Your task to perform on an android device: open wifi settings Image 0: 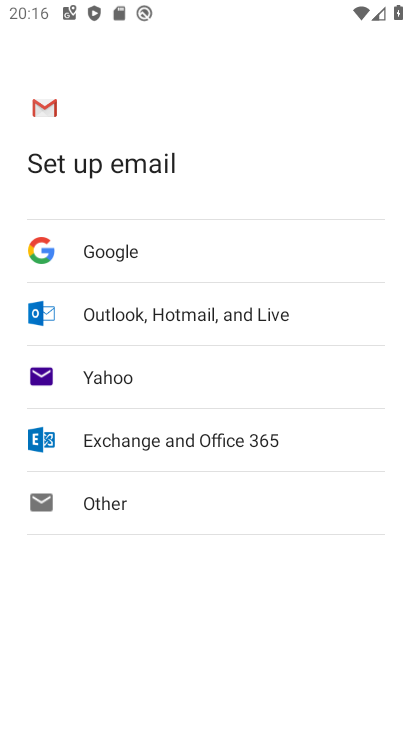
Step 0: click (27, 513)
Your task to perform on an android device: open wifi settings Image 1: 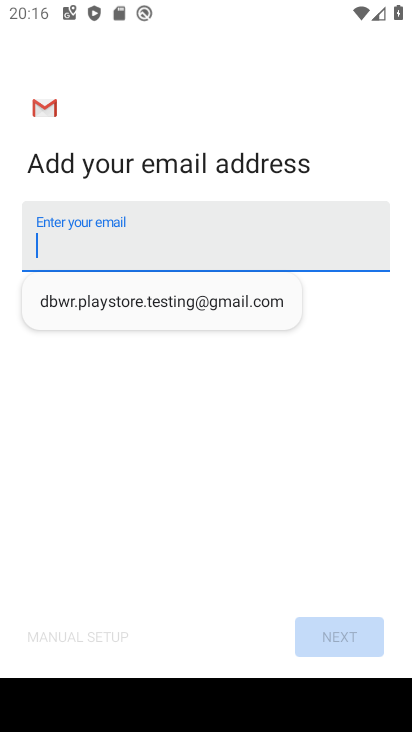
Step 1: press home button
Your task to perform on an android device: open wifi settings Image 2: 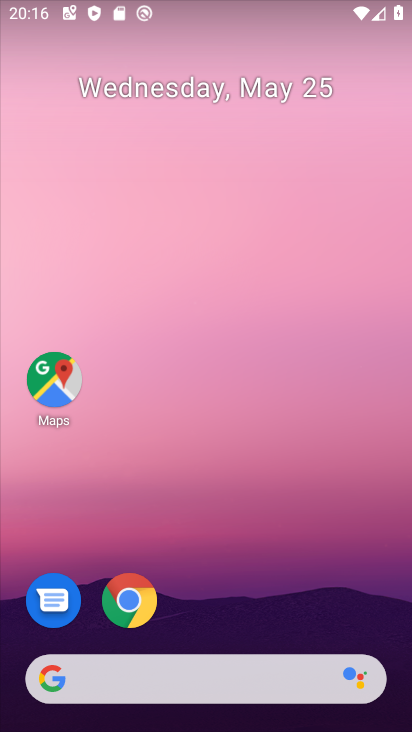
Step 2: drag from (379, 575) to (303, 220)
Your task to perform on an android device: open wifi settings Image 3: 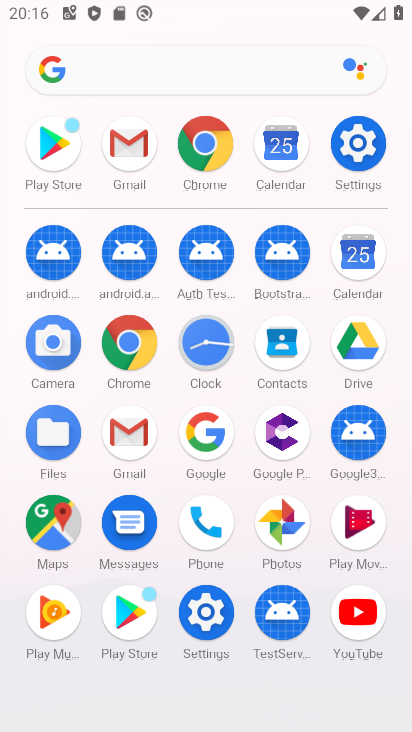
Step 3: click (373, 158)
Your task to perform on an android device: open wifi settings Image 4: 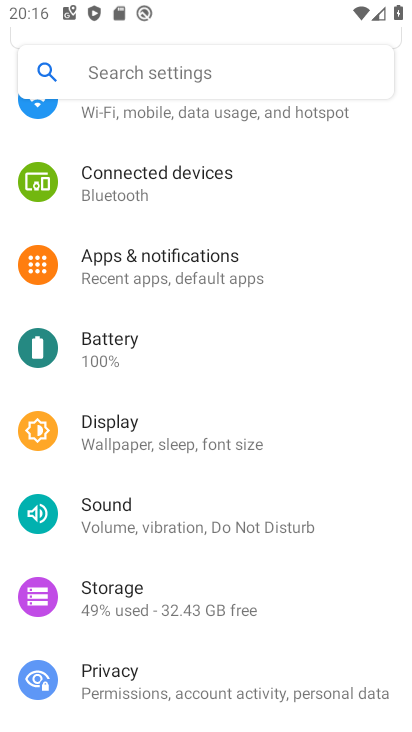
Step 4: drag from (243, 167) to (309, 416)
Your task to perform on an android device: open wifi settings Image 5: 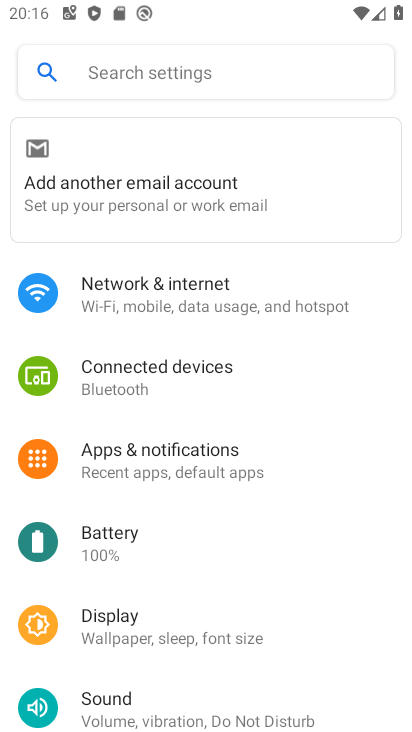
Step 5: click (182, 294)
Your task to perform on an android device: open wifi settings Image 6: 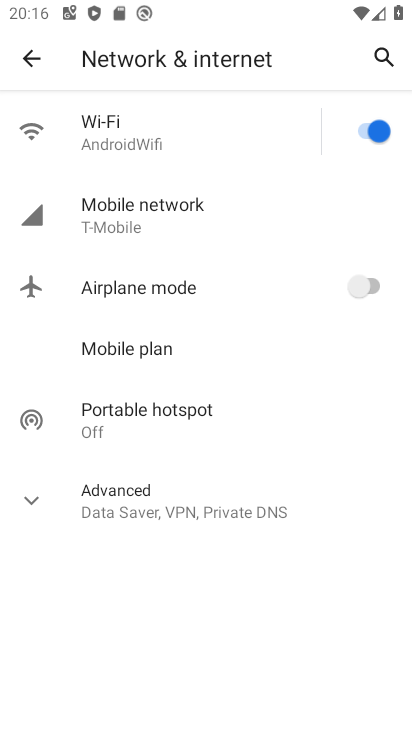
Step 6: click (170, 131)
Your task to perform on an android device: open wifi settings Image 7: 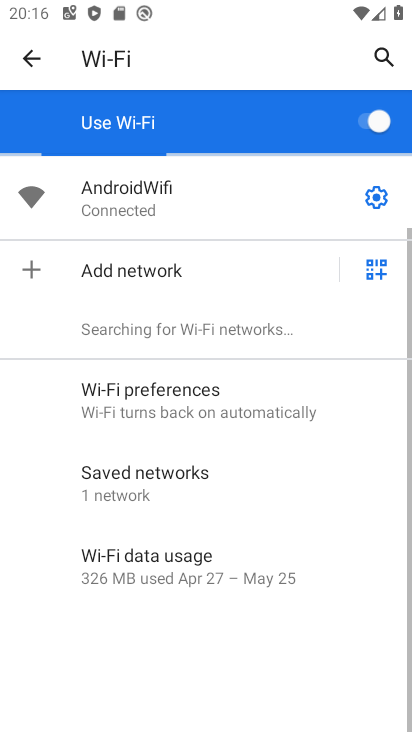
Step 7: click (386, 193)
Your task to perform on an android device: open wifi settings Image 8: 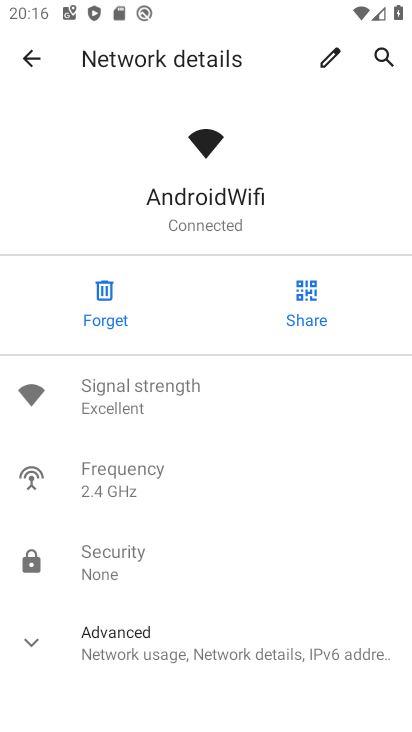
Step 8: task complete